Your task to perform on an android device: Play the last video I watched on Youtube Image 0: 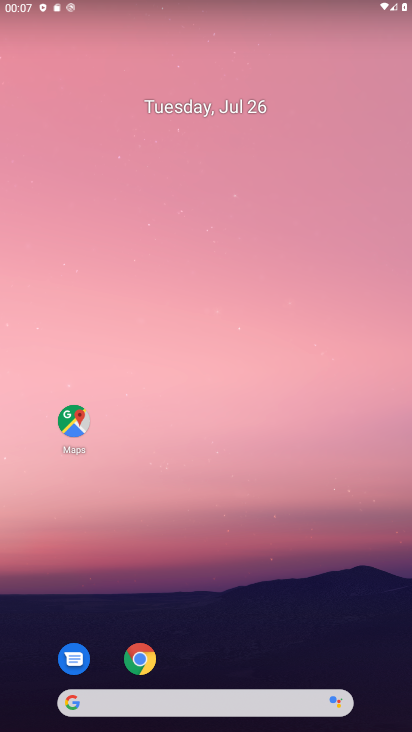
Step 0: press home button
Your task to perform on an android device: Play the last video I watched on Youtube Image 1: 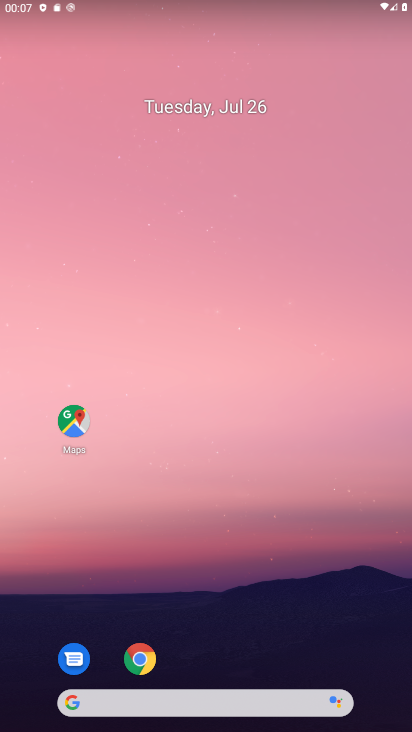
Step 1: drag from (211, 686) to (398, 76)
Your task to perform on an android device: Play the last video I watched on Youtube Image 2: 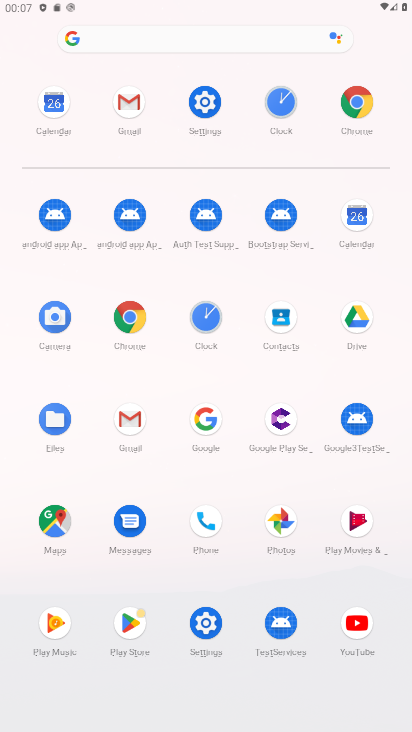
Step 2: click (349, 631)
Your task to perform on an android device: Play the last video I watched on Youtube Image 3: 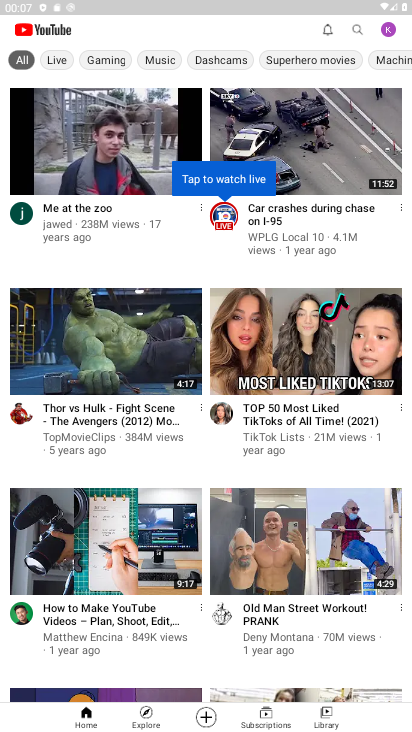
Step 3: click (312, 718)
Your task to perform on an android device: Play the last video I watched on Youtube Image 4: 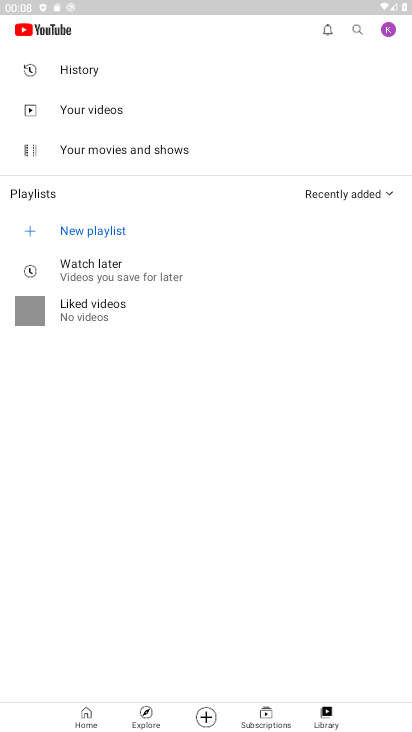
Step 4: click (78, 57)
Your task to perform on an android device: Play the last video I watched on Youtube Image 5: 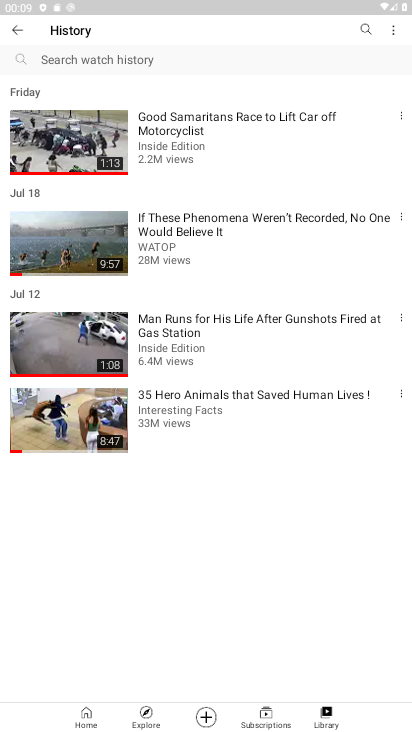
Step 5: click (206, 141)
Your task to perform on an android device: Play the last video I watched on Youtube Image 6: 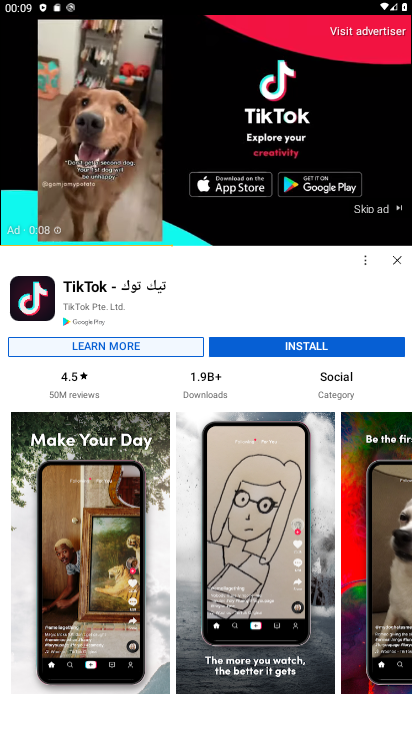
Step 6: click (390, 212)
Your task to perform on an android device: Play the last video I watched on Youtube Image 7: 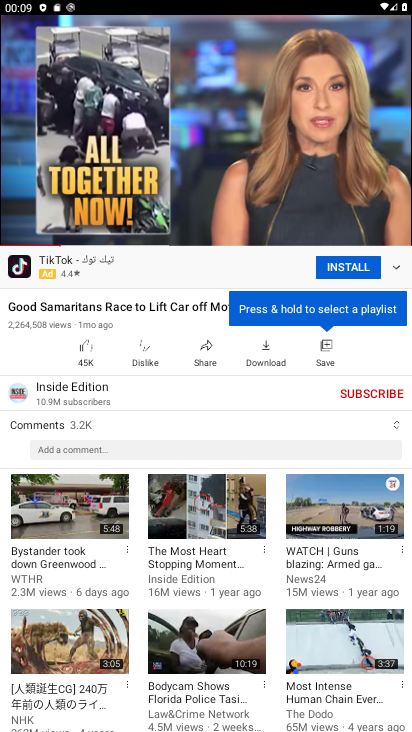
Step 7: task complete